Your task to perform on an android device: change timer sound Image 0: 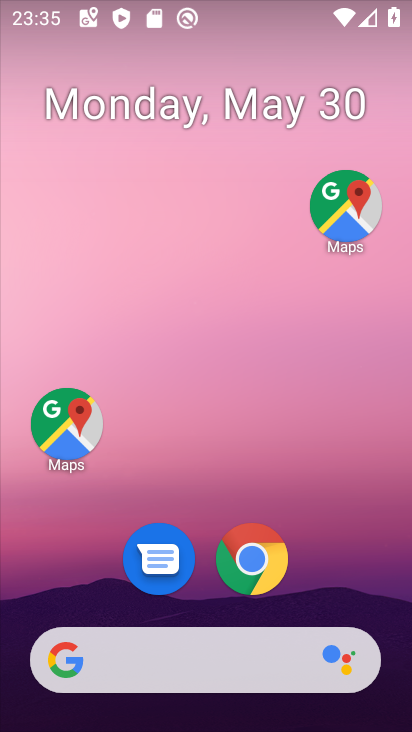
Step 0: drag from (341, 515) to (379, 180)
Your task to perform on an android device: change timer sound Image 1: 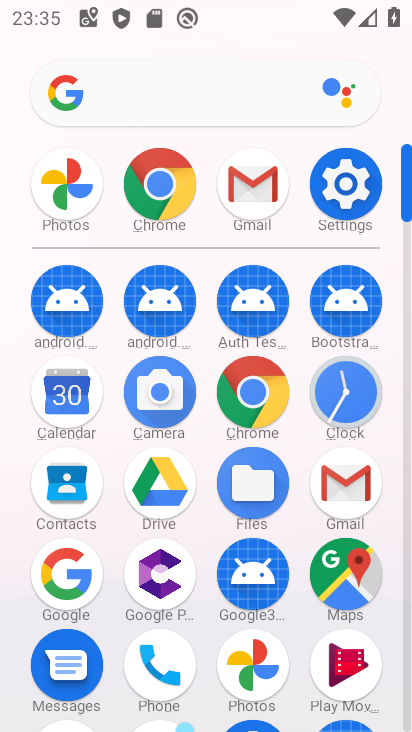
Step 1: click (348, 406)
Your task to perform on an android device: change timer sound Image 2: 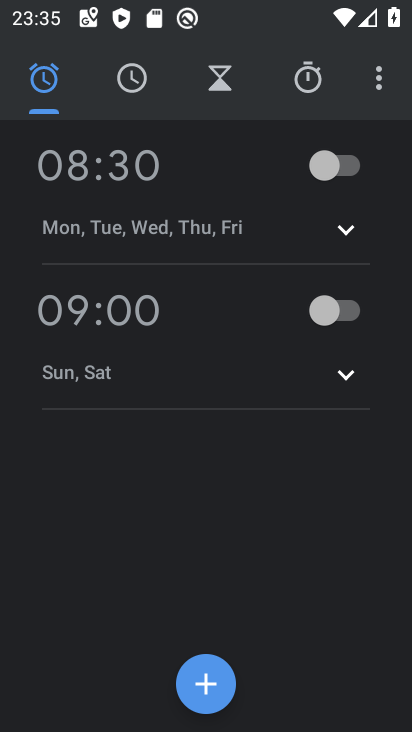
Step 2: click (378, 76)
Your task to perform on an android device: change timer sound Image 3: 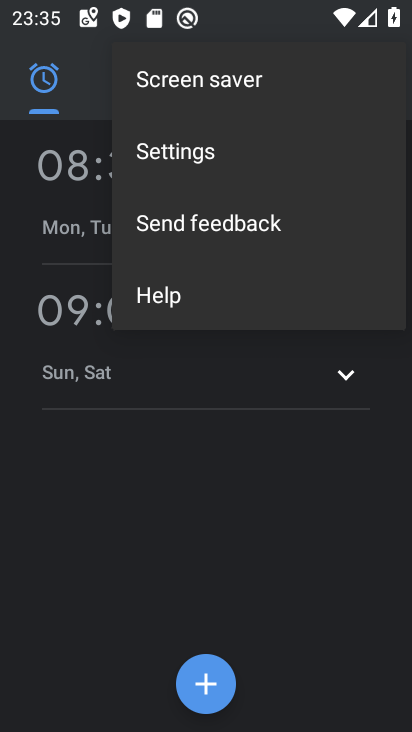
Step 3: click (194, 155)
Your task to perform on an android device: change timer sound Image 4: 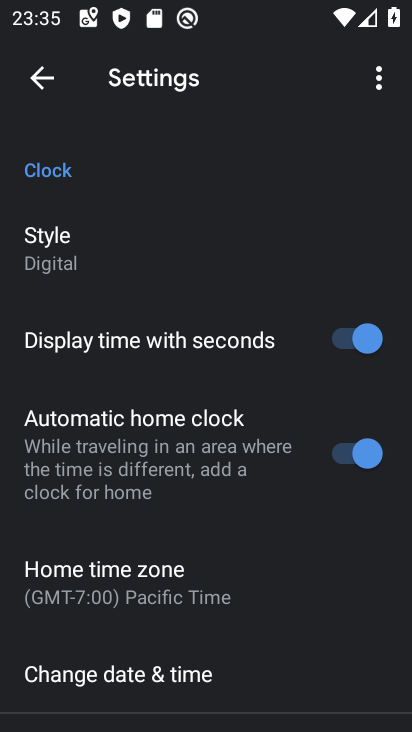
Step 4: drag from (301, 566) to (294, 207)
Your task to perform on an android device: change timer sound Image 5: 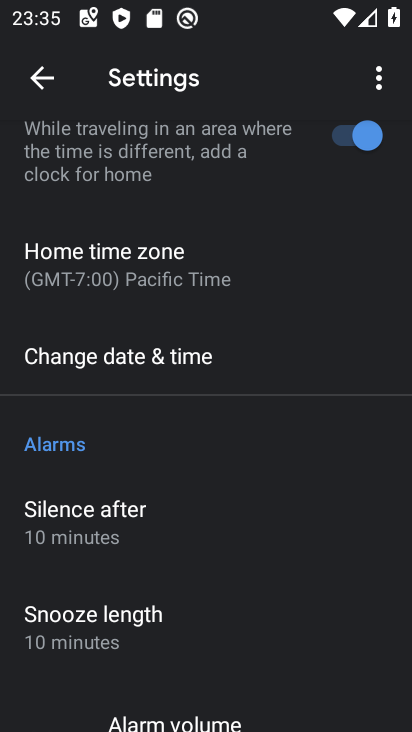
Step 5: drag from (248, 585) to (294, 234)
Your task to perform on an android device: change timer sound Image 6: 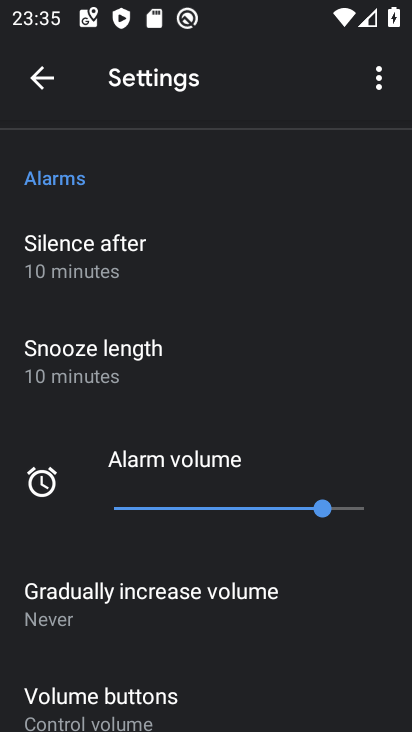
Step 6: drag from (248, 670) to (279, 281)
Your task to perform on an android device: change timer sound Image 7: 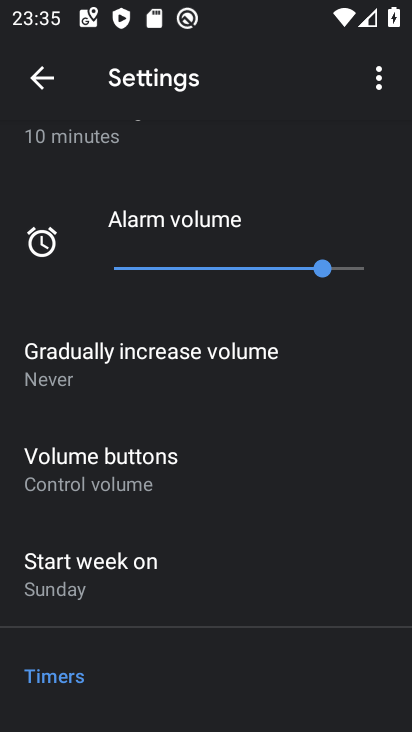
Step 7: drag from (253, 395) to (331, 168)
Your task to perform on an android device: change timer sound Image 8: 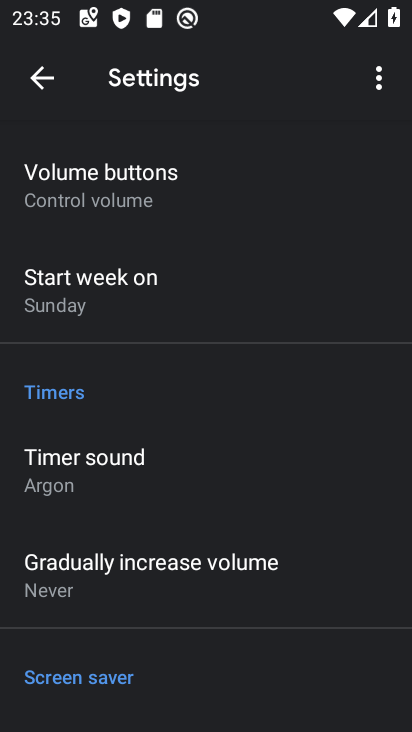
Step 8: click (122, 449)
Your task to perform on an android device: change timer sound Image 9: 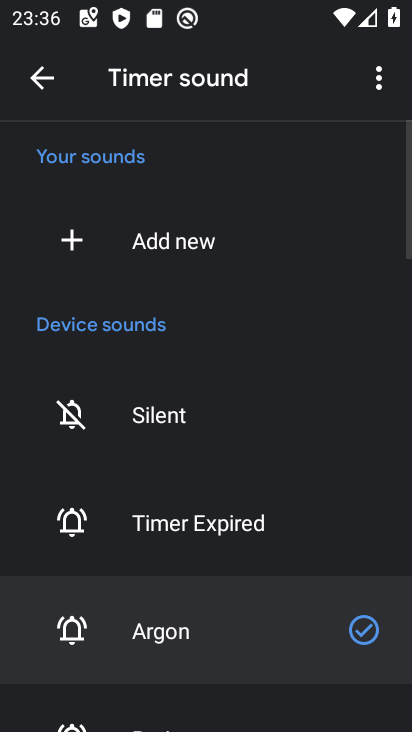
Step 9: click (264, 508)
Your task to perform on an android device: change timer sound Image 10: 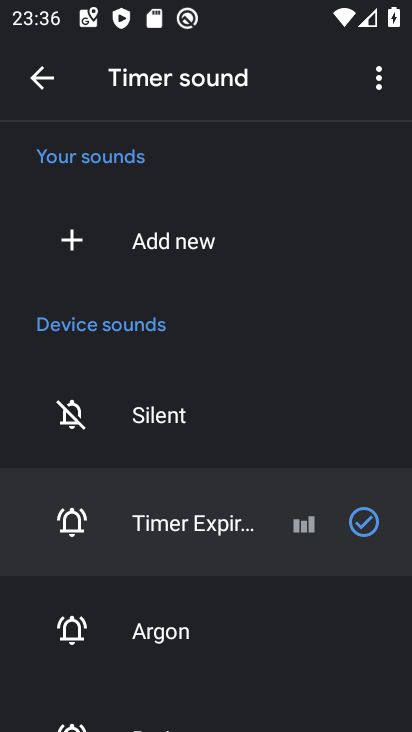
Step 10: task complete